Your task to perform on an android device: Open calendar and show me the second week of next month Image 0: 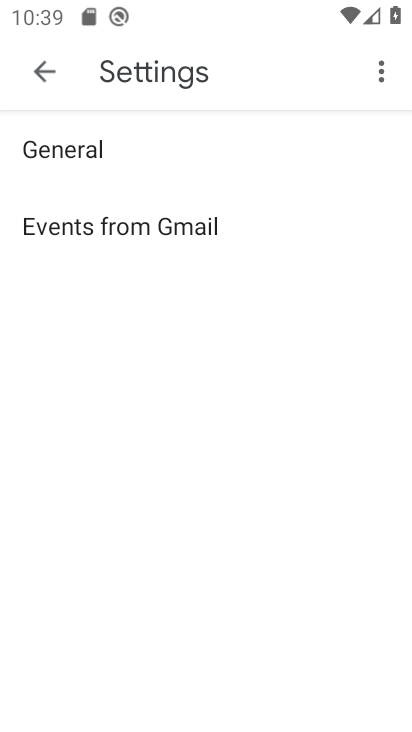
Step 0: press home button
Your task to perform on an android device: Open calendar and show me the second week of next month Image 1: 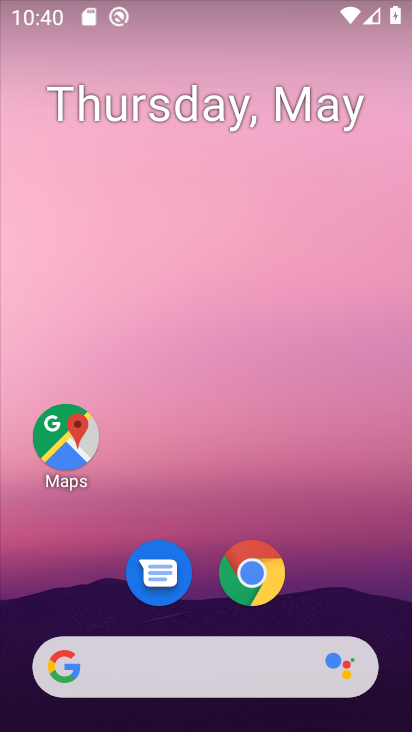
Step 1: drag from (100, 604) to (233, 77)
Your task to perform on an android device: Open calendar and show me the second week of next month Image 2: 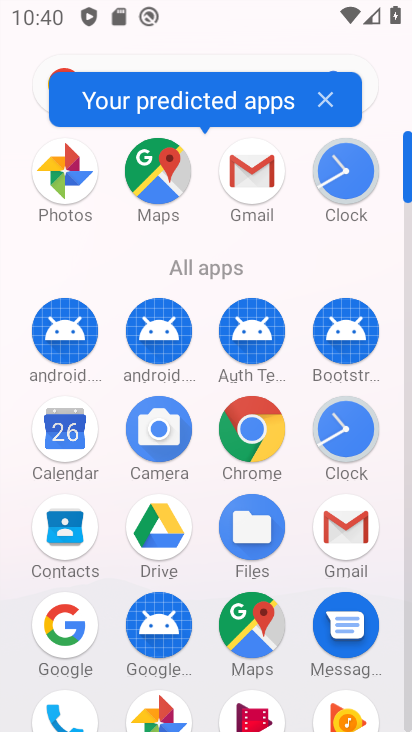
Step 2: click (71, 448)
Your task to perform on an android device: Open calendar and show me the second week of next month Image 3: 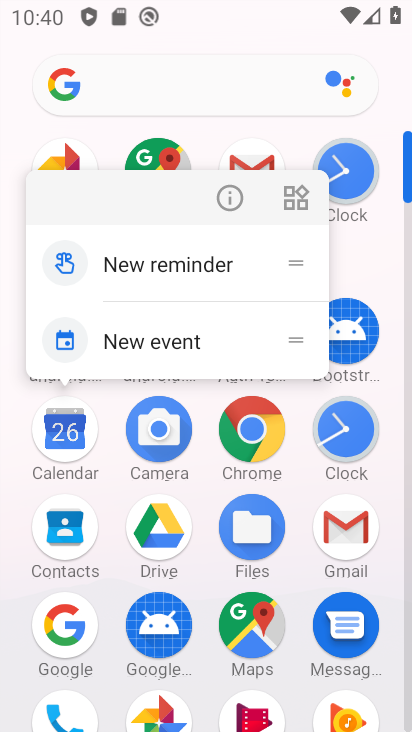
Step 3: click (53, 418)
Your task to perform on an android device: Open calendar and show me the second week of next month Image 4: 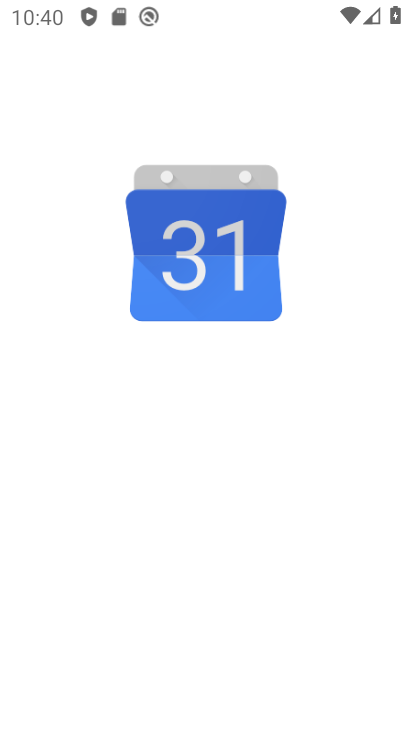
Step 4: click (67, 424)
Your task to perform on an android device: Open calendar and show me the second week of next month Image 5: 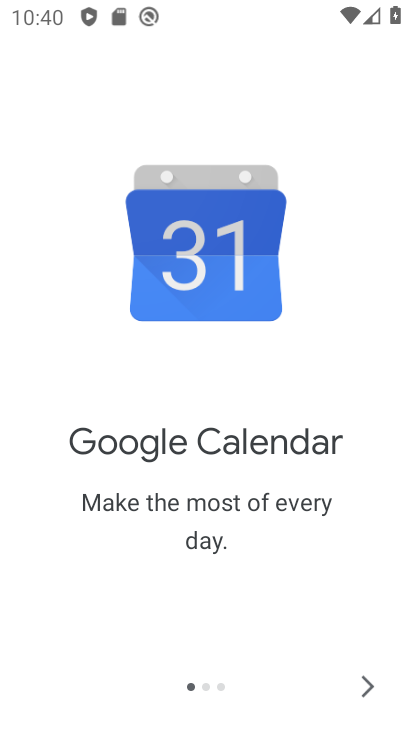
Step 5: click (368, 676)
Your task to perform on an android device: Open calendar and show me the second week of next month Image 6: 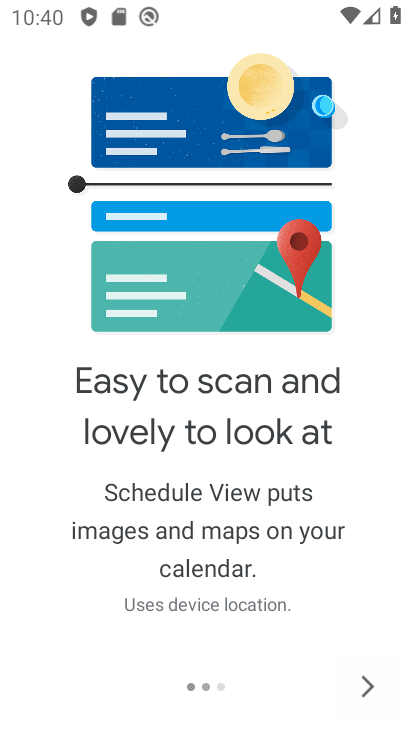
Step 6: click (368, 676)
Your task to perform on an android device: Open calendar and show me the second week of next month Image 7: 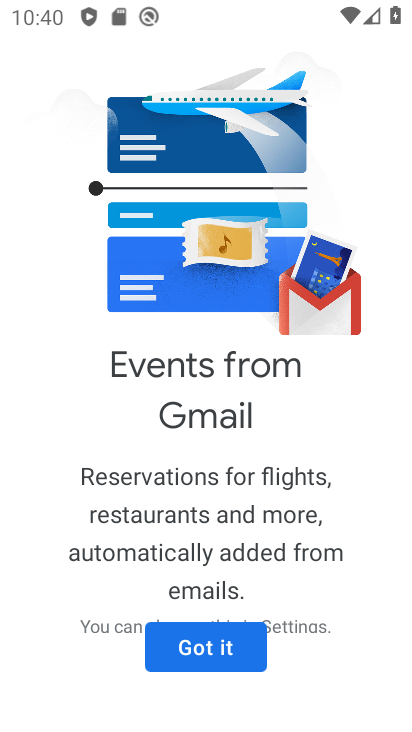
Step 7: click (249, 660)
Your task to perform on an android device: Open calendar and show me the second week of next month Image 8: 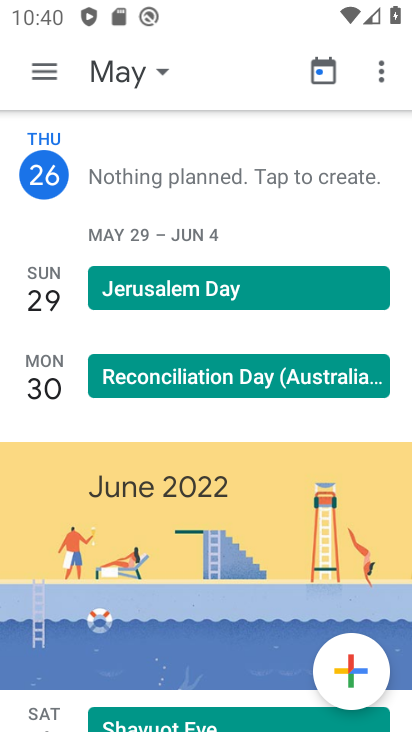
Step 8: click (112, 66)
Your task to perform on an android device: Open calendar and show me the second week of next month Image 9: 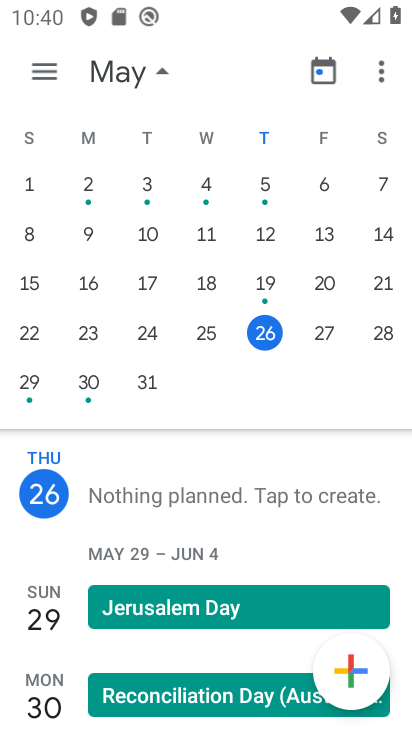
Step 9: drag from (342, 376) to (4, 346)
Your task to perform on an android device: Open calendar and show me the second week of next month Image 10: 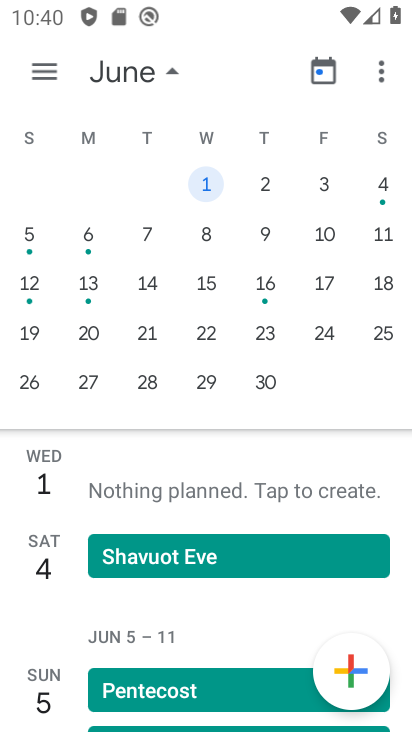
Step 10: click (34, 284)
Your task to perform on an android device: Open calendar and show me the second week of next month Image 11: 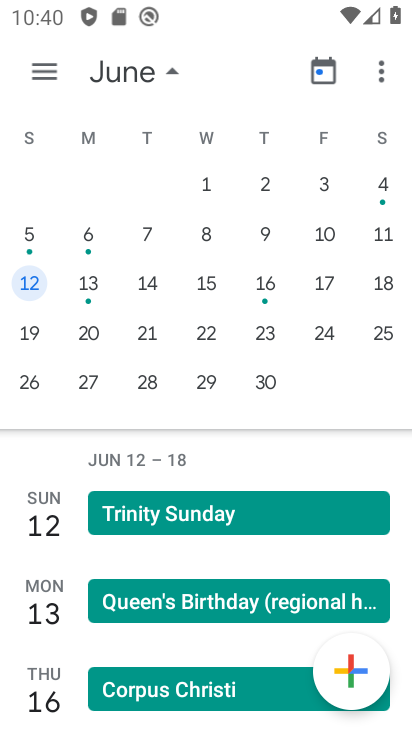
Step 11: click (33, 78)
Your task to perform on an android device: Open calendar and show me the second week of next month Image 12: 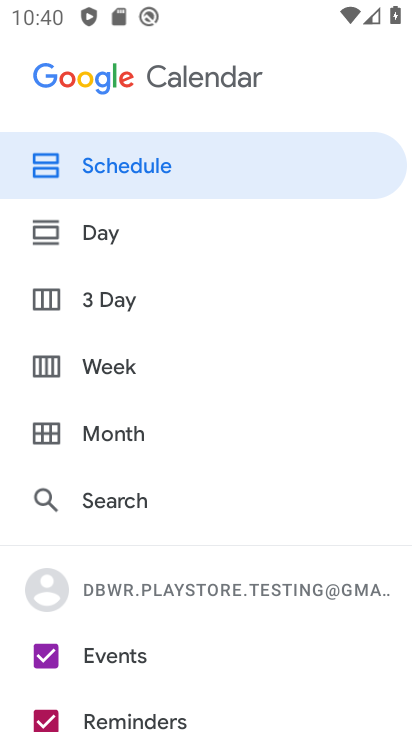
Step 12: click (134, 373)
Your task to perform on an android device: Open calendar and show me the second week of next month Image 13: 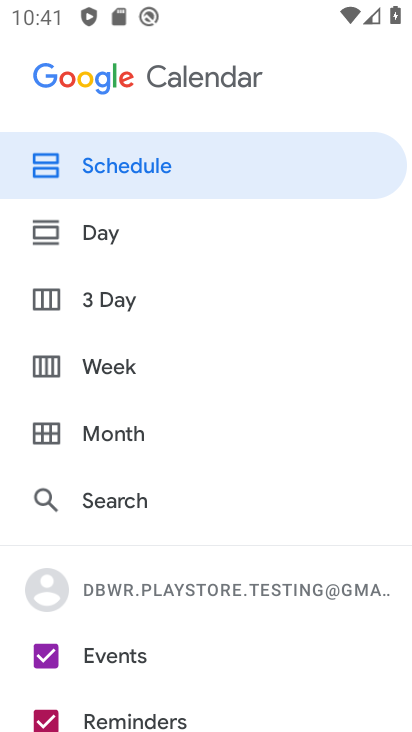
Step 13: click (134, 373)
Your task to perform on an android device: Open calendar and show me the second week of next month Image 14: 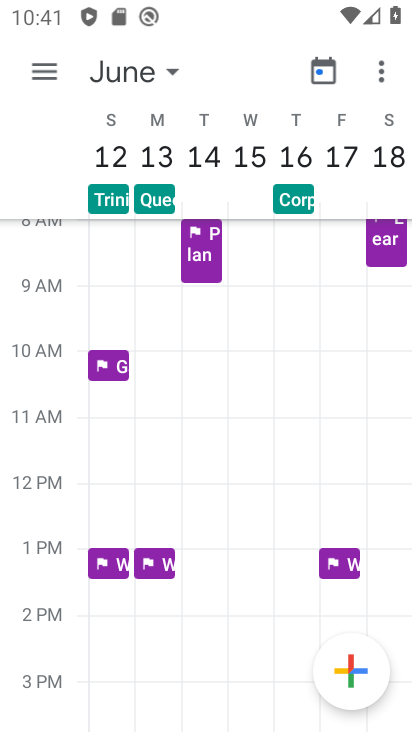
Step 14: task complete